Your task to perform on an android device: toggle data saver in the chrome app Image 0: 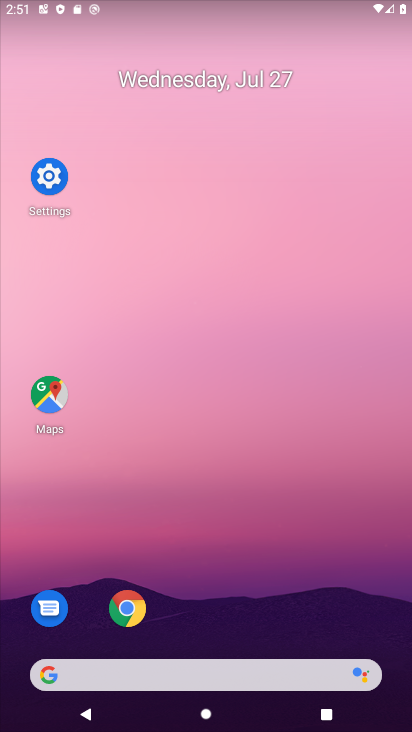
Step 0: click (123, 617)
Your task to perform on an android device: toggle data saver in the chrome app Image 1: 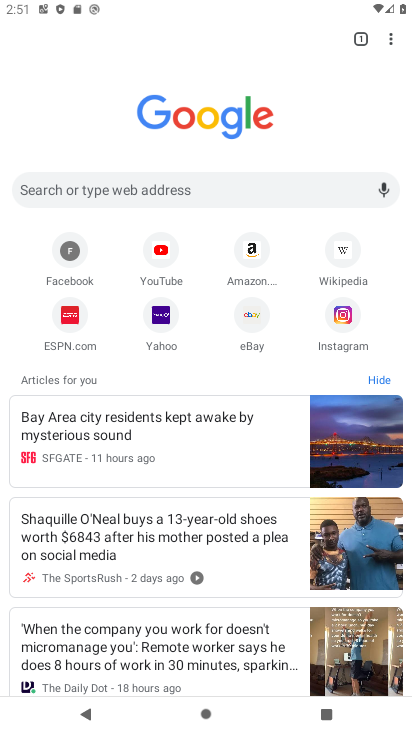
Step 1: click (394, 43)
Your task to perform on an android device: toggle data saver in the chrome app Image 2: 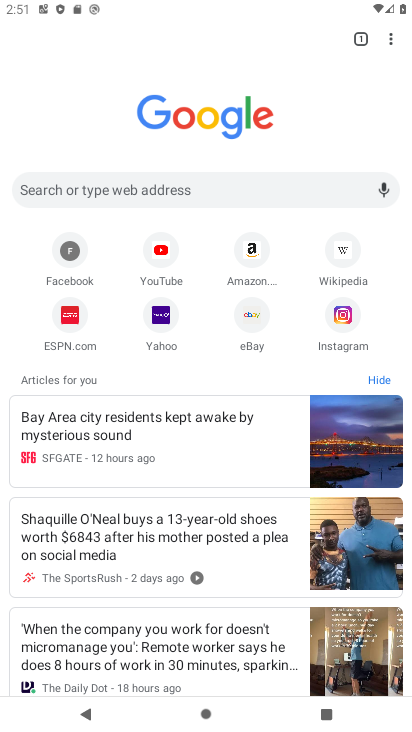
Step 2: click (384, 52)
Your task to perform on an android device: toggle data saver in the chrome app Image 3: 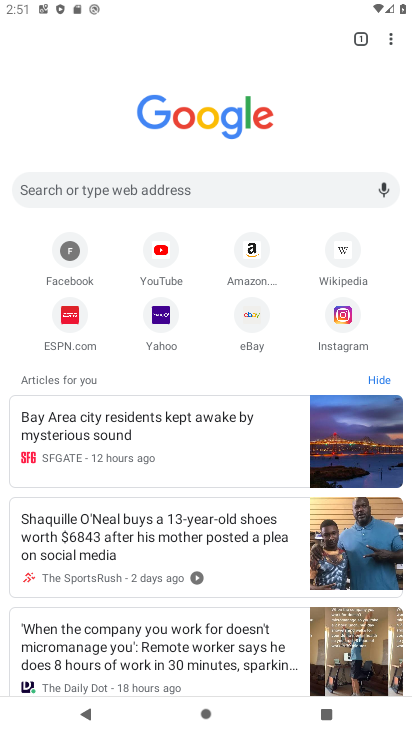
Step 3: click (387, 31)
Your task to perform on an android device: toggle data saver in the chrome app Image 4: 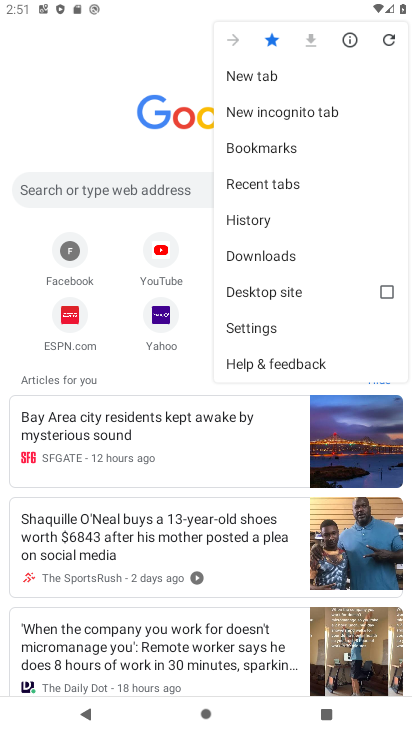
Step 4: click (298, 315)
Your task to perform on an android device: toggle data saver in the chrome app Image 5: 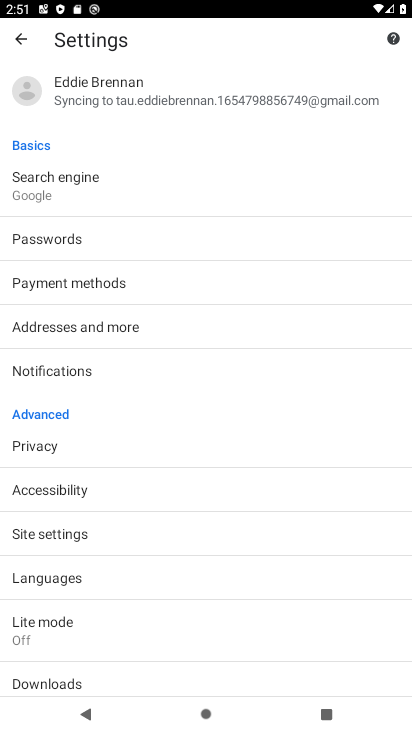
Step 5: click (95, 621)
Your task to perform on an android device: toggle data saver in the chrome app Image 6: 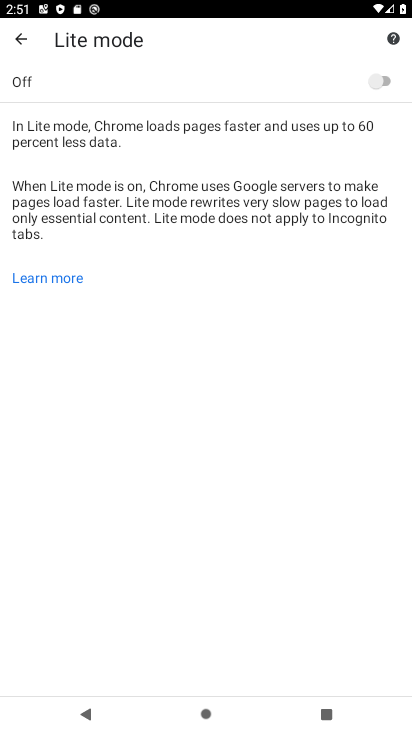
Step 6: click (371, 79)
Your task to perform on an android device: toggle data saver in the chrome app Image 7: 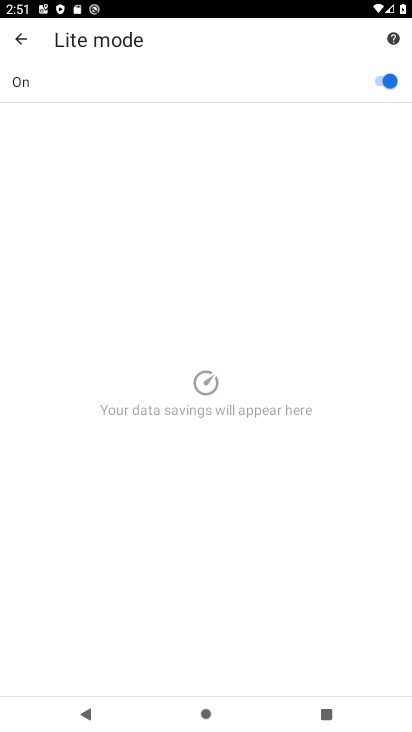
Step 7: task complete